Your task to perform on an android device: turn off data saver in the chrome app Image 0: 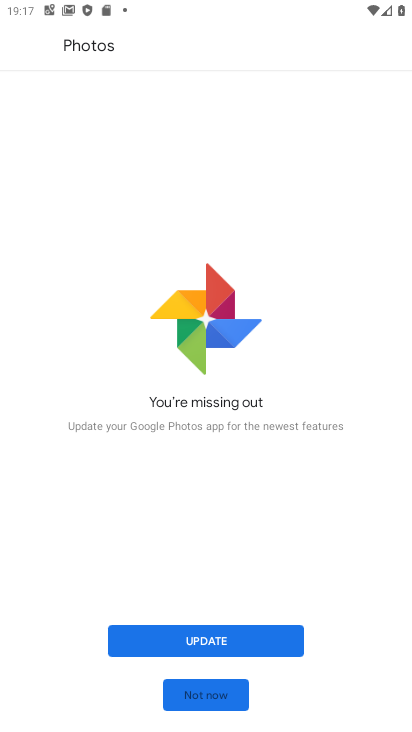
Step 0: press home button
Your task to perform on an android device: turn off data saver in the chrome app Image 1: 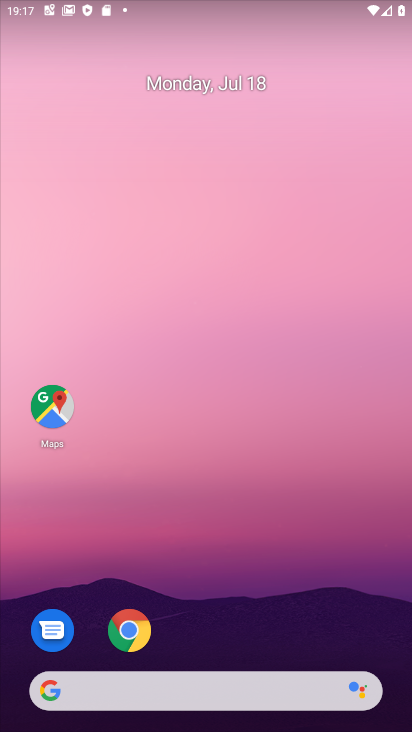
Step 1: drag from (291, 576) to (71, 16)
Your task to perform on an android device: turn off data saver in the chrome app Image 2: 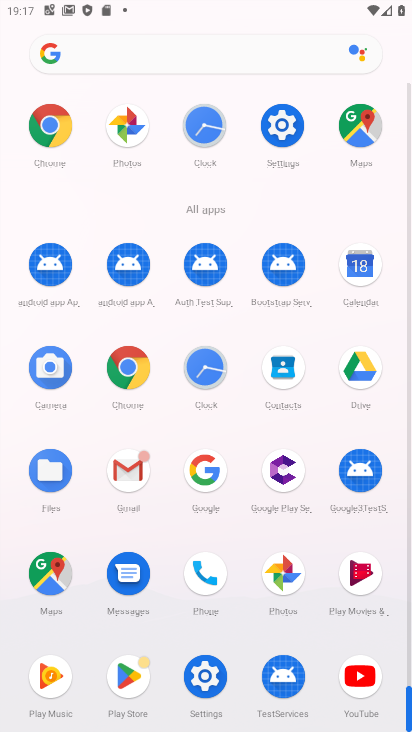
Step 2: click (50, 130)
Your task to perform on an android device: turn off data saver in the chrome app Image 3: 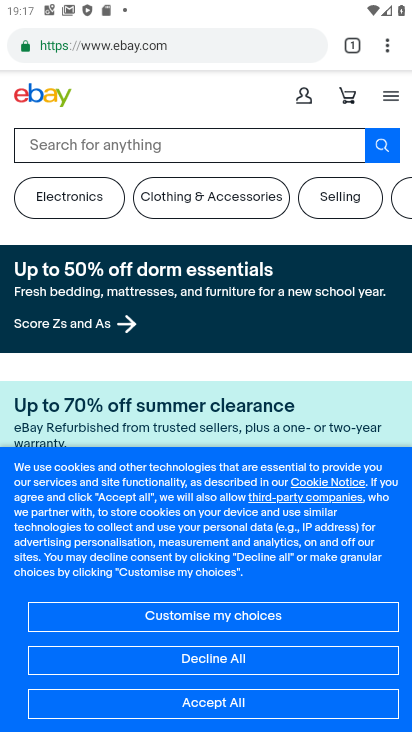
Step 3: drag from (389, 49) to (233, 559)
Your task to perform on an android device: turn off data saver in the chrome app Image 4: 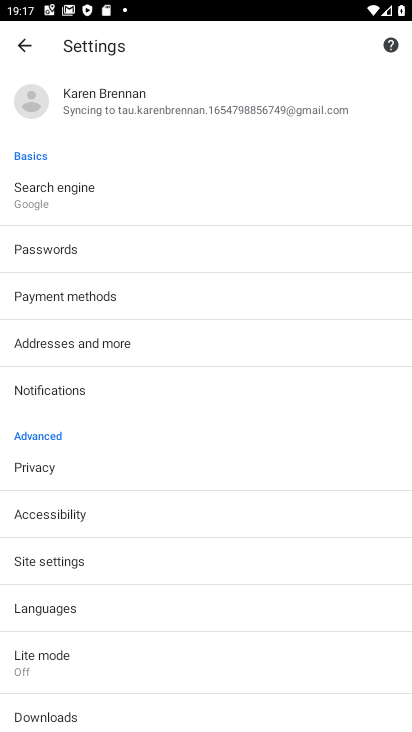
Step 4: click (59, 663)
Your task to perform on an android device: turn off data saver in the chrome app Image 5: 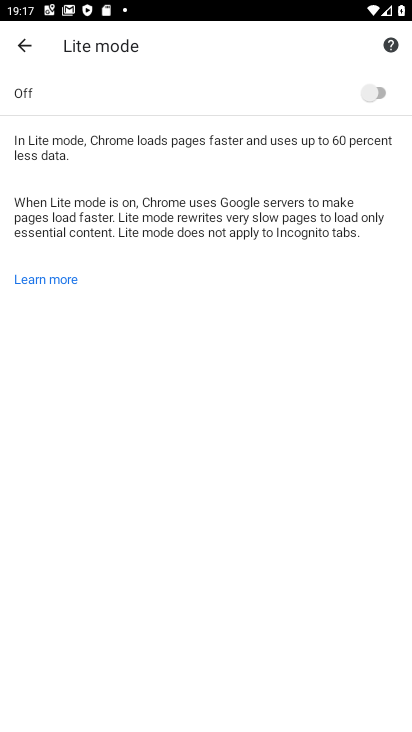
Step 5: task complete